Your task to perform on an android device: Go to network settings Image 0: 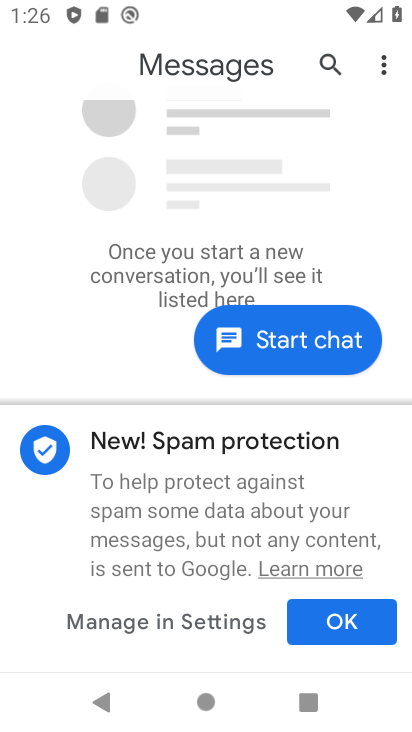
Step 0: press home button
Your task to perform on an android device: Go to network settings Image 1: 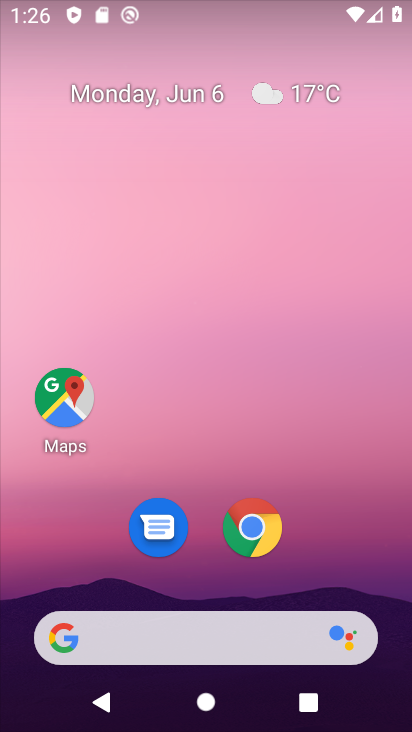
Step 1: drag from (241, 723) to (234, 2)
Your task to perform on an android device: Go to network settings Image 2: 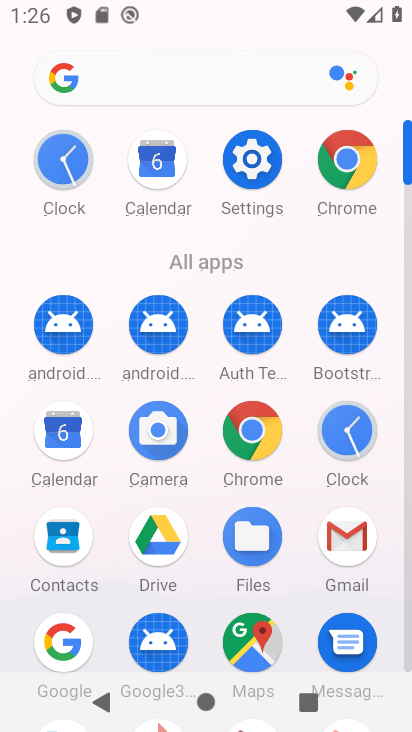
Step 2: click (245, 149)
Your task to perform on an android device: Go to network settings Image 3: 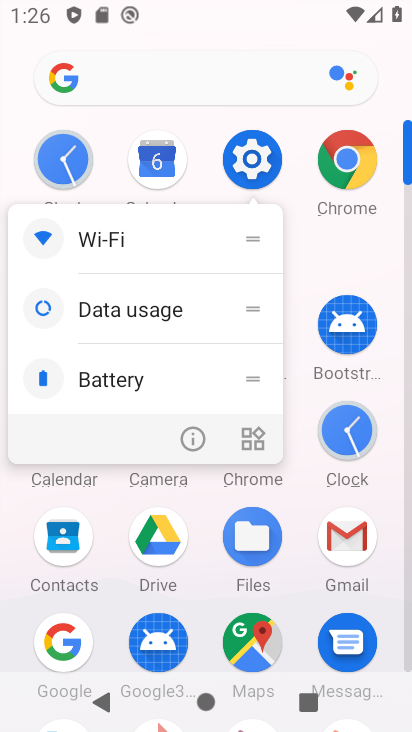
Step 3: click (244, 155)
Your task to perform on an android device: Go to network settings Image 4: 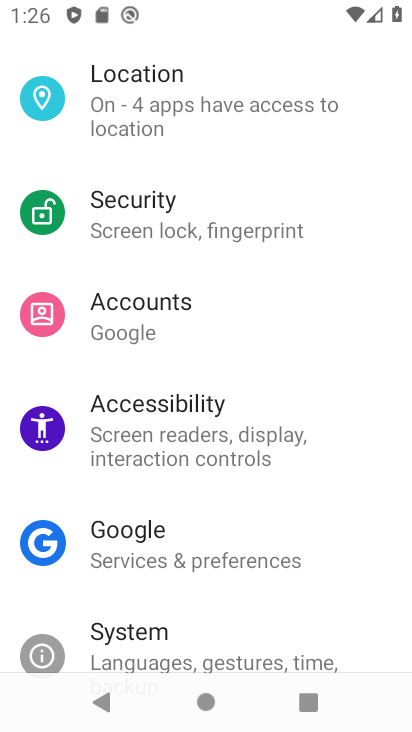
Step 4: drag from (200, 92) to (232, 549)
Your task to perform on an android device: Go to network settings Image 5: 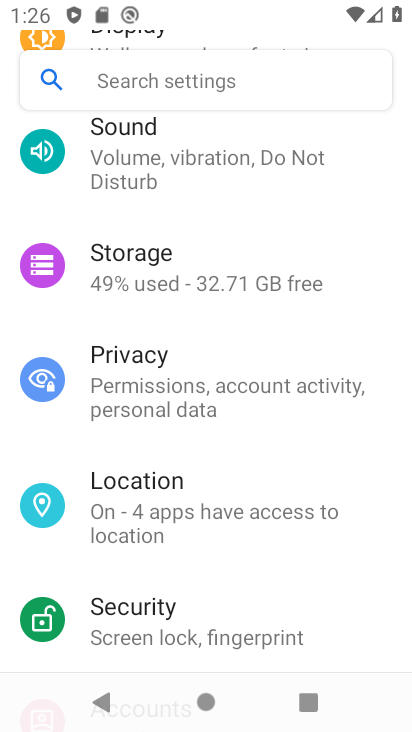
Step 5: drag from (237, 127) to (234, 540)
Your task to perform on an android device: Go to network settings Image 6: 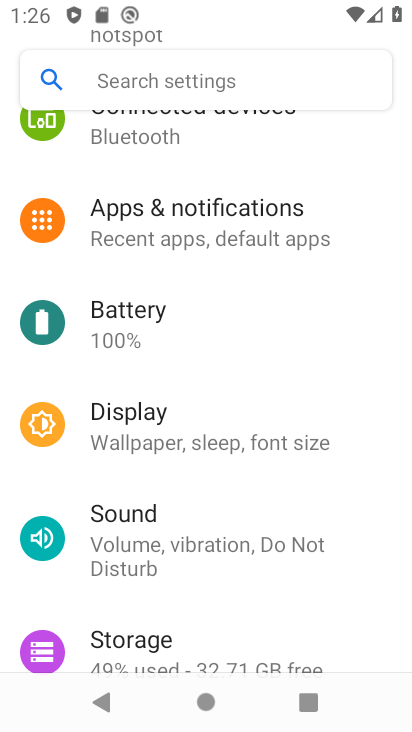
Step 6: drag from (222, 143) to (239, 559)
Your task to perform on an android device: Go to network settings Image 7: 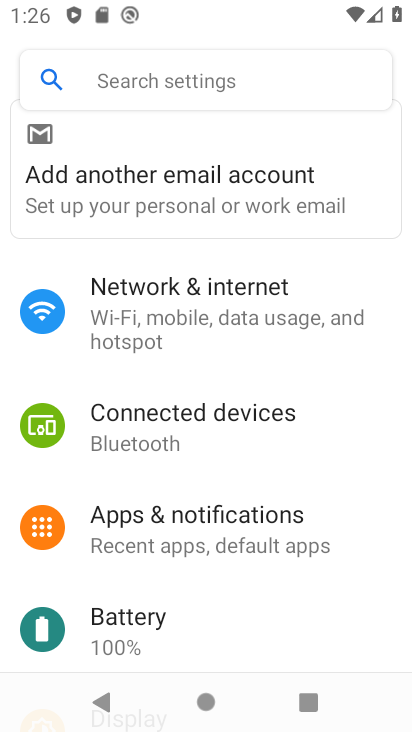
Step 7: click (192, 306)
Your task to perform on an android device: Go to network settings Image 8: 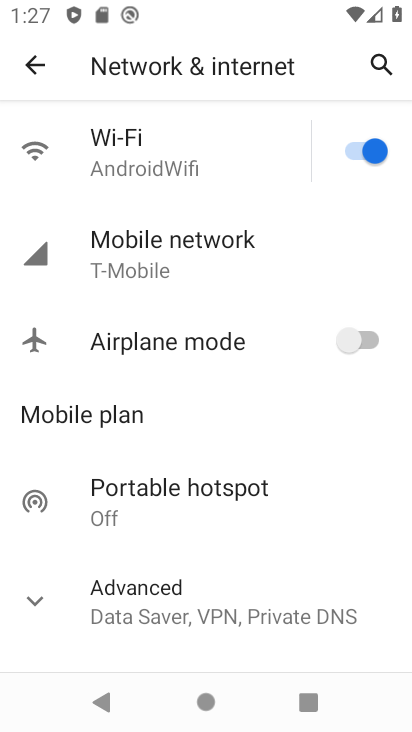
Step 8: click (134, 252)
Your task to perform on an android device: Go to network settings Image 9: 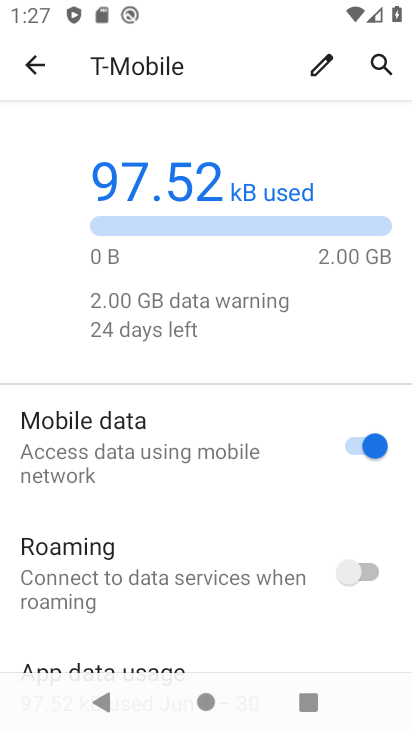
Step 9: drag from (200, 633) to (201, 312)
Your task to perform on an android device: Go to network settings Image 10: 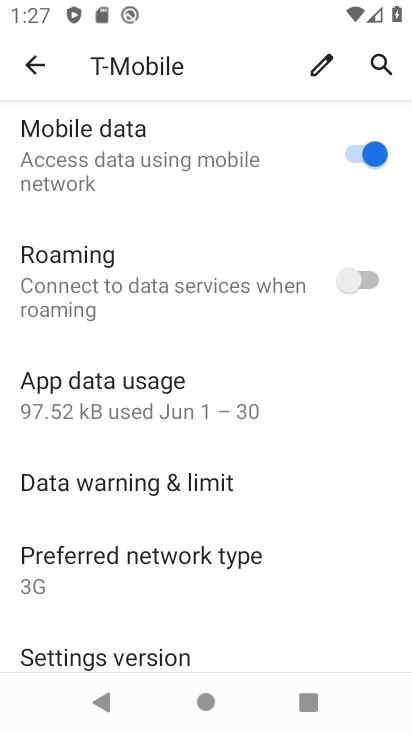
Step 10: click (95, 404)
Your task to perform on an android device: Go to network settings Image 11: 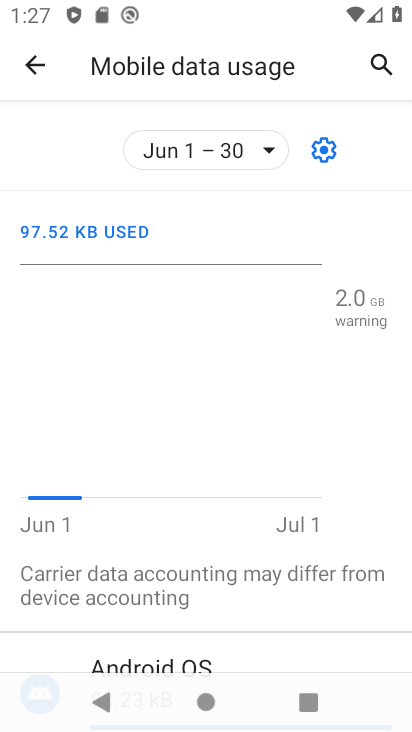
Step 11: task complete